Your task to perform on an android device: manage bookmarks in the chrome app Image 0: 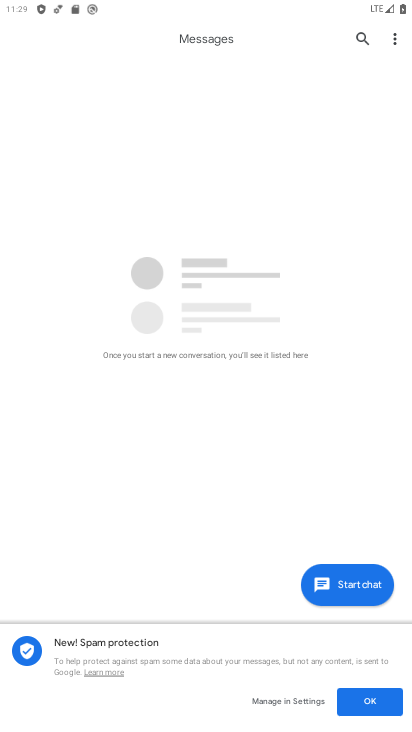
Step 0: press home button
Your task to perform on an android device: manage bookmarks in the chrome app Image 1: 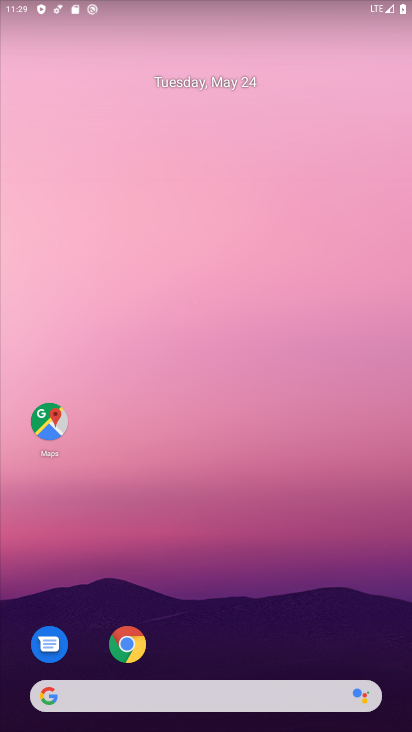
Step 1: click (124, 641)
Your task to perform on an android device: manage bookmarks in the chrome app Image 2: 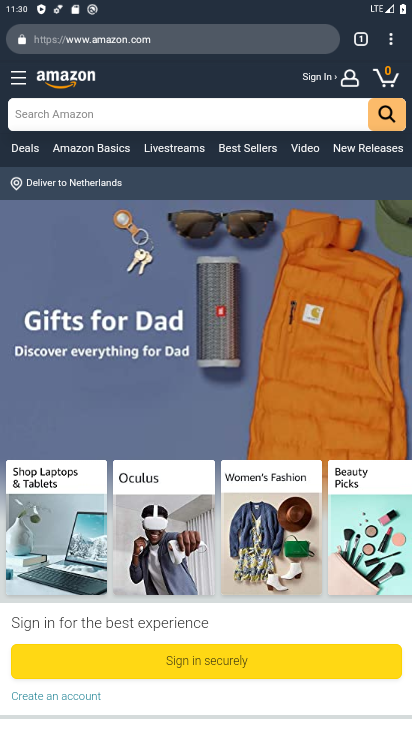
Step 2: click (393, 37)
Your task to perform on an android device: manage bookmarks in the chrome app Image 3: 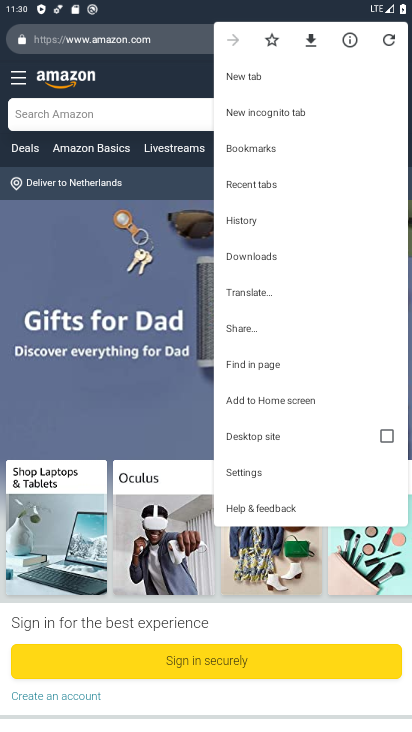
Step 3: click (248, 141)
Your task to perform on an android device: manage bookmarks in the chrome app Image 4: 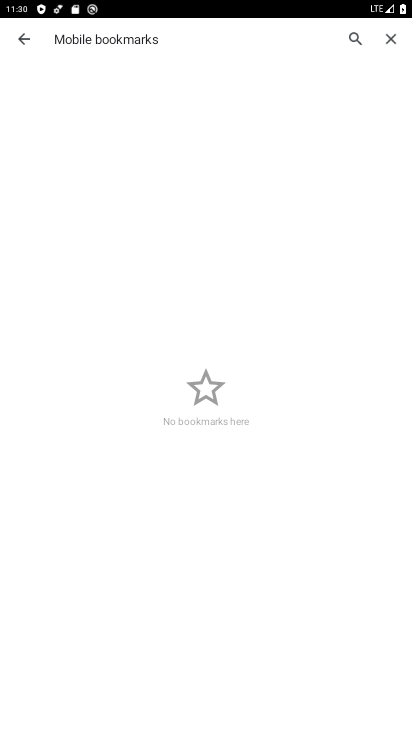
Step 4: task complete